Your task to perform on an android device: Go to Google maps Image 0: 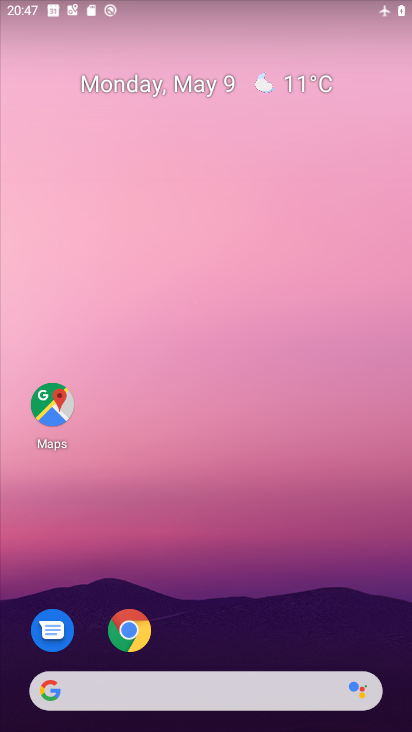
Step 0: click (67, 411)
Your task to perform on an android device: Go to Google maps Image 1: 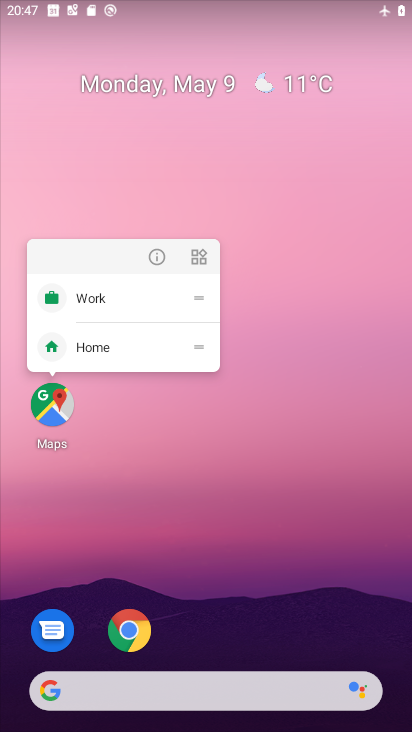
Step 1: click (67, 411)
Your task to perform on an android device: Go to Google maps Image 2: 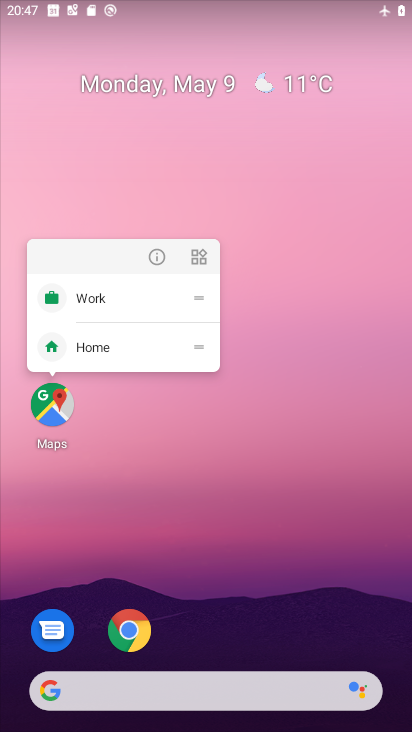
Step 2: click (71, 402)
Your task to perform on an android device: Go to Google maps Image 3: 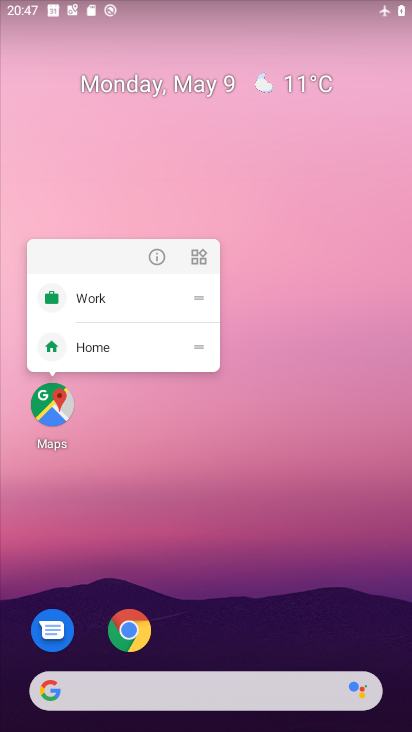
Step 3: click (50, 422)
Your task to perform on an android device: Go to Google maps Image 4: 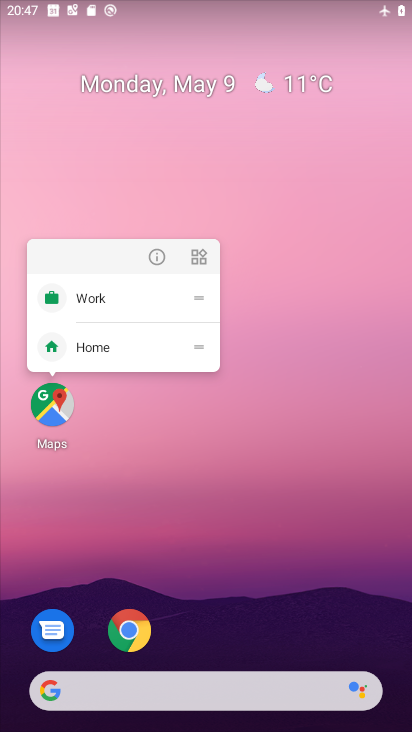
Step 4: click (45, 413)
Your task to perform on an android device: Go to Google maps Image 5: 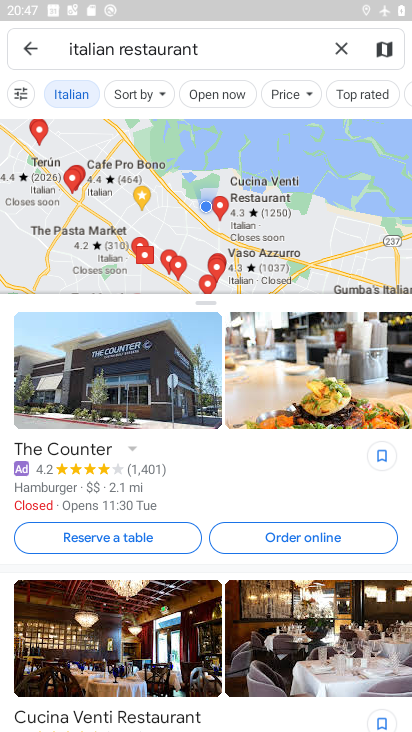
Step 5: task complete